Your task to perform on an android device: Open display settings Image 0: 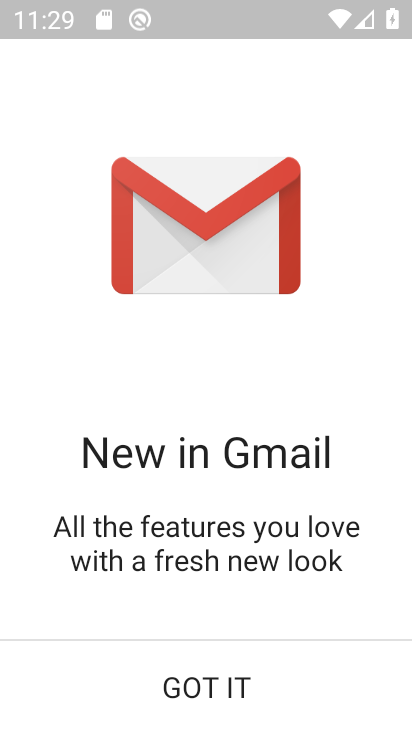
Step 0: click (193, 679)
Your task to perform on an android device: Open display settings Image 1: 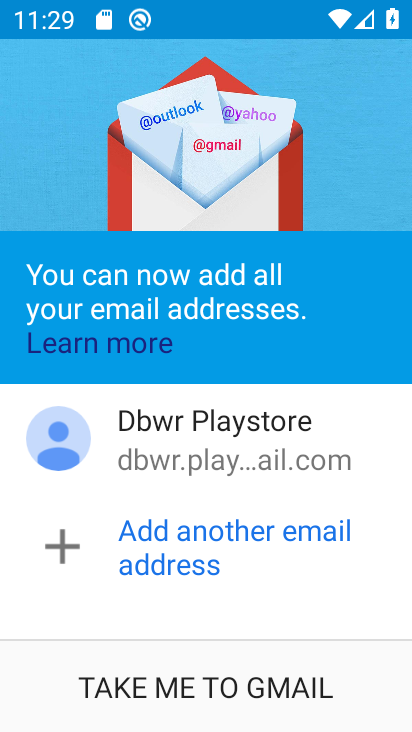
Step 1: press home button
Your task to perform on an android device: Open display settings Image 2: 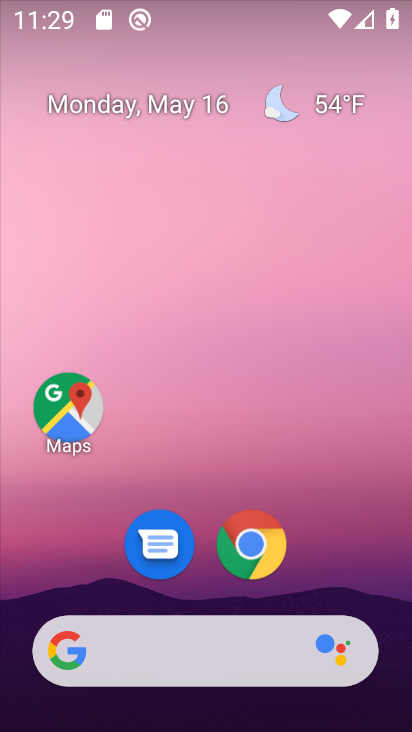
Step 2: drag from (399, 662) to (388, 341)
Your task to perform on an android device: Open display settings Image 3: 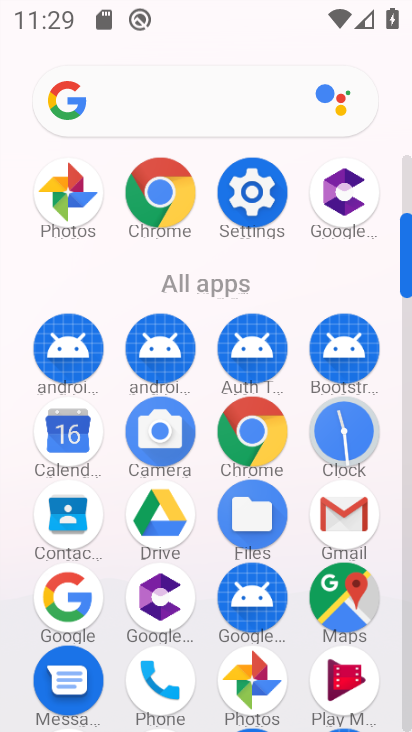
Step 3: click (249, 201)
Your task to perform on an android device: Open display settings Image 4: 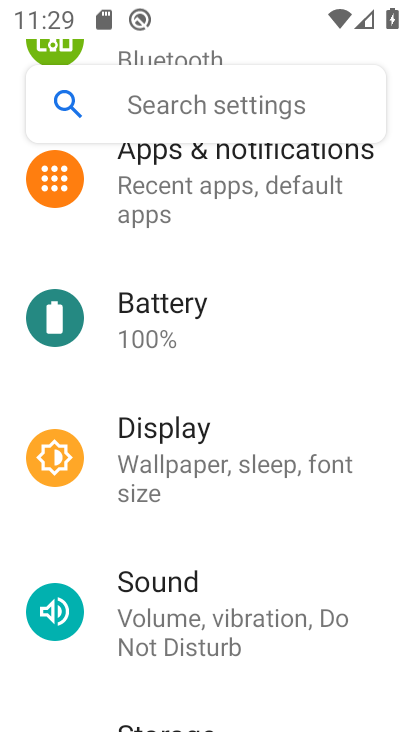
Step 4: task complete